Your task to perform on an android device: turn on priority inbox in the gmail app Image 0: 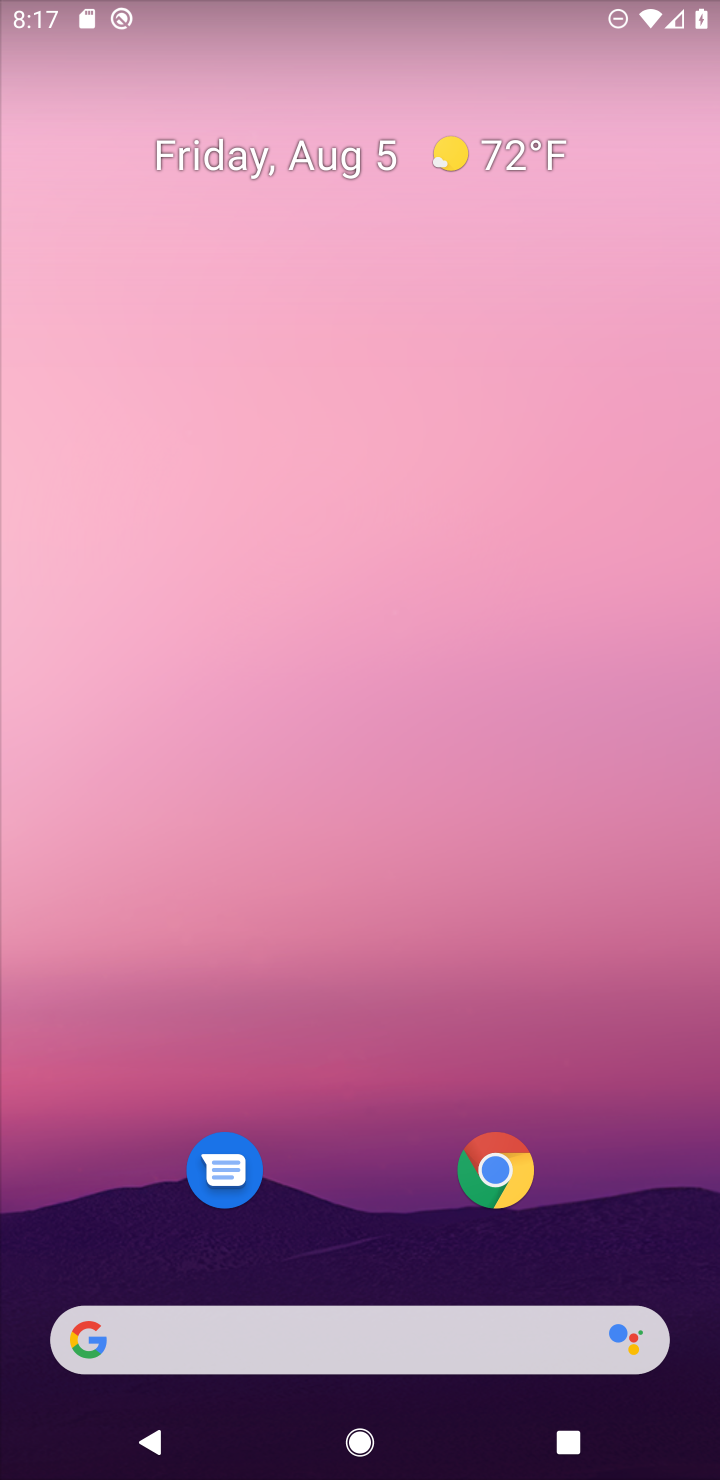
Step 0: drag from (643, 1230) to (603, 83)
Your task to perform on an android device: turn on priority inbox in the gmail app Image 1: 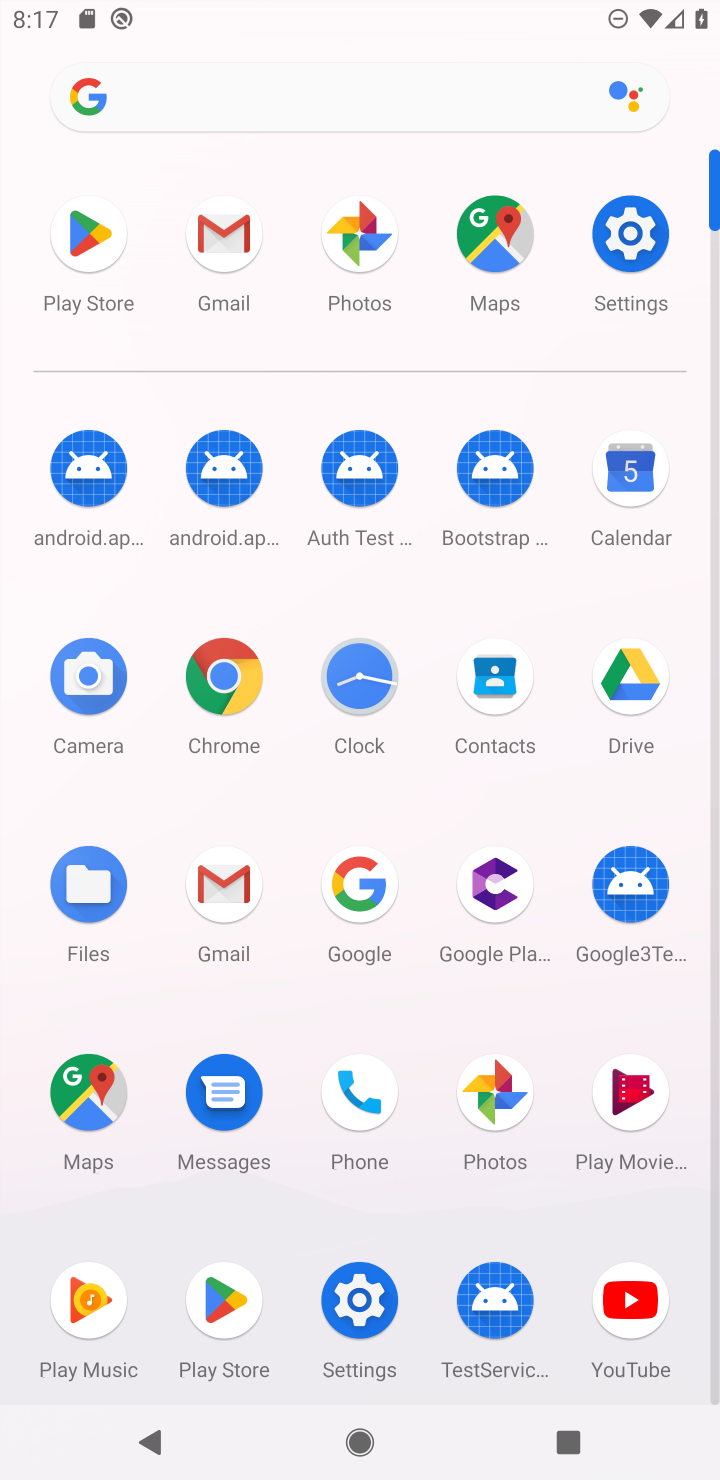
Step 1: click (220, 890)
Your task to perform on an android device: turn on priority inbox in the gmail app Image 2: 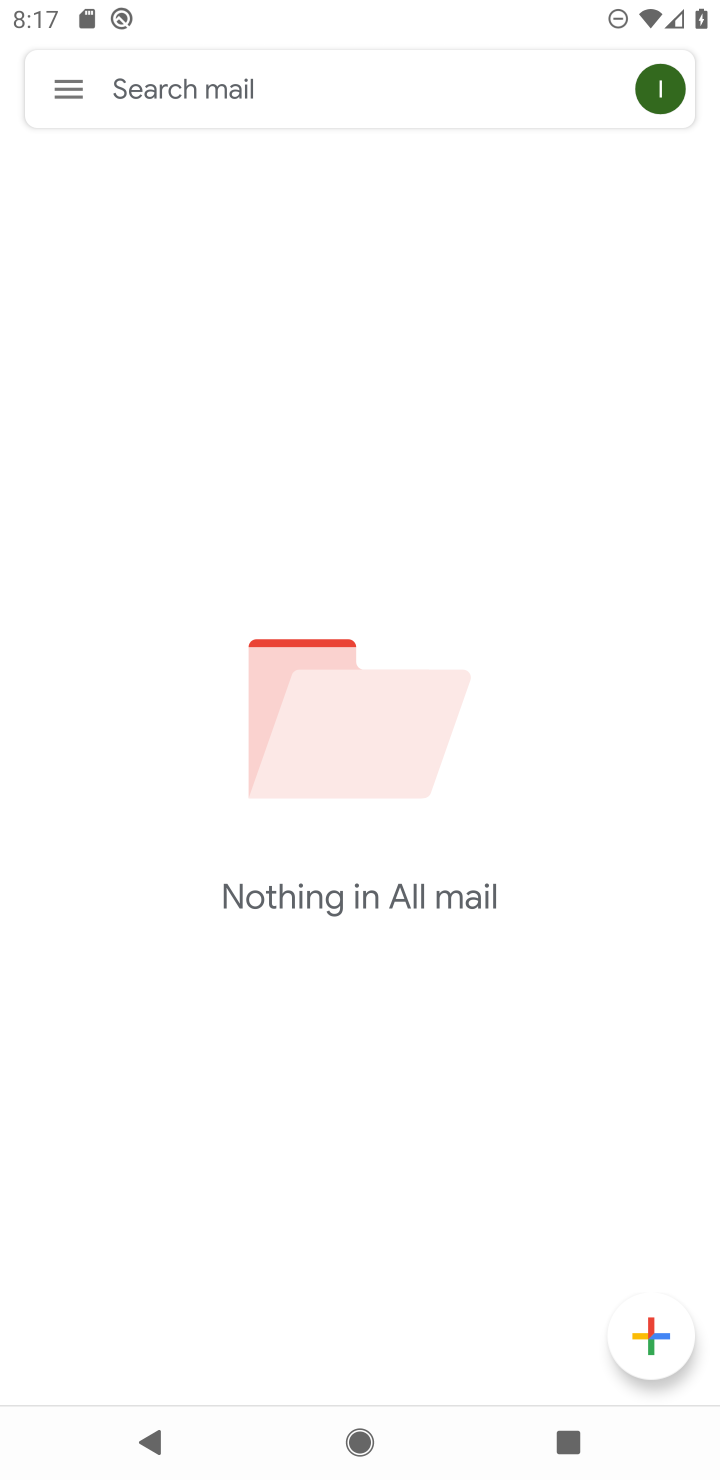
Step 2: click (72, 97)
Your task to perform on an android device: turn on priority inbox in the gmail app Image 3: 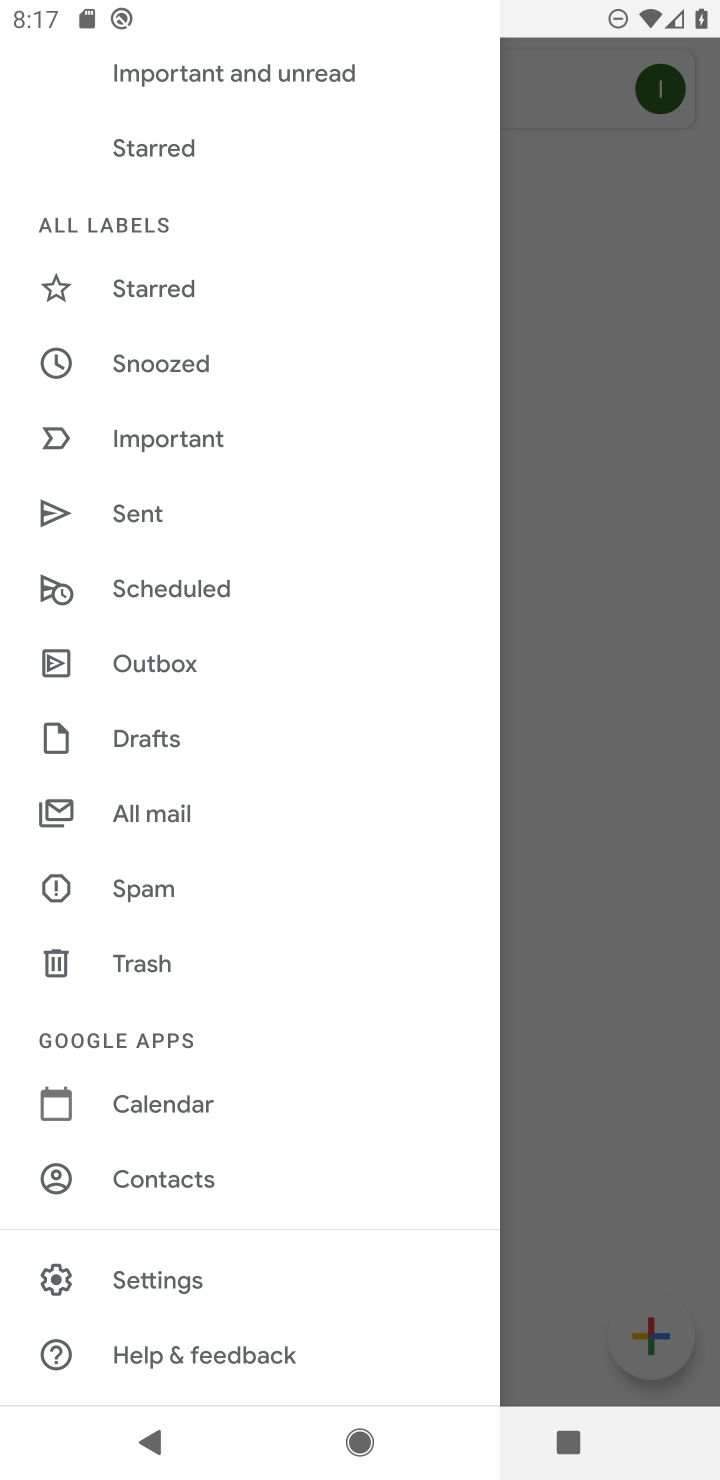
Step 3: click (150, 1267)
Your task to perform on an android device: turn on priority inbox in the gmail app Image 4: 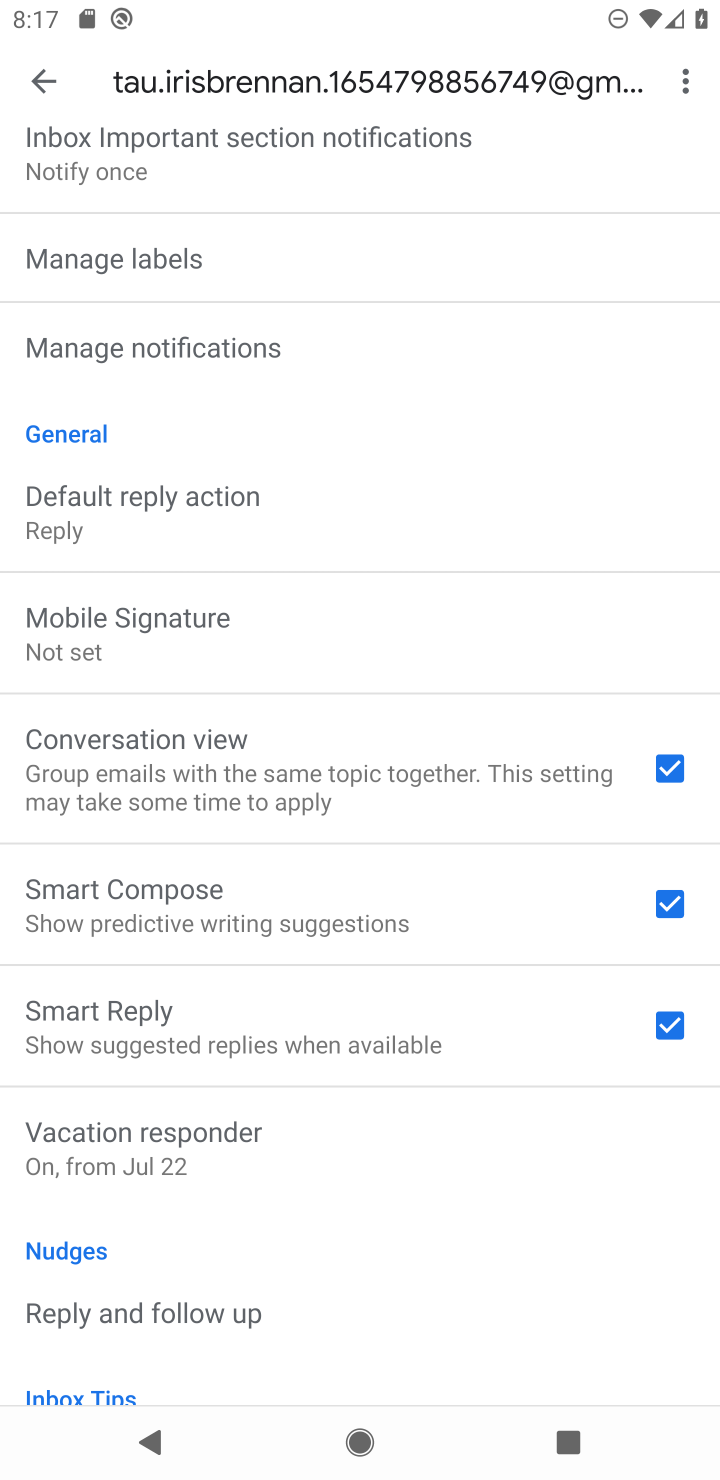
Step 4: drag from (509, 351) to (524, 883)
Your task to perform on an android device: turn on priority inbox in the gmail app Image 5: 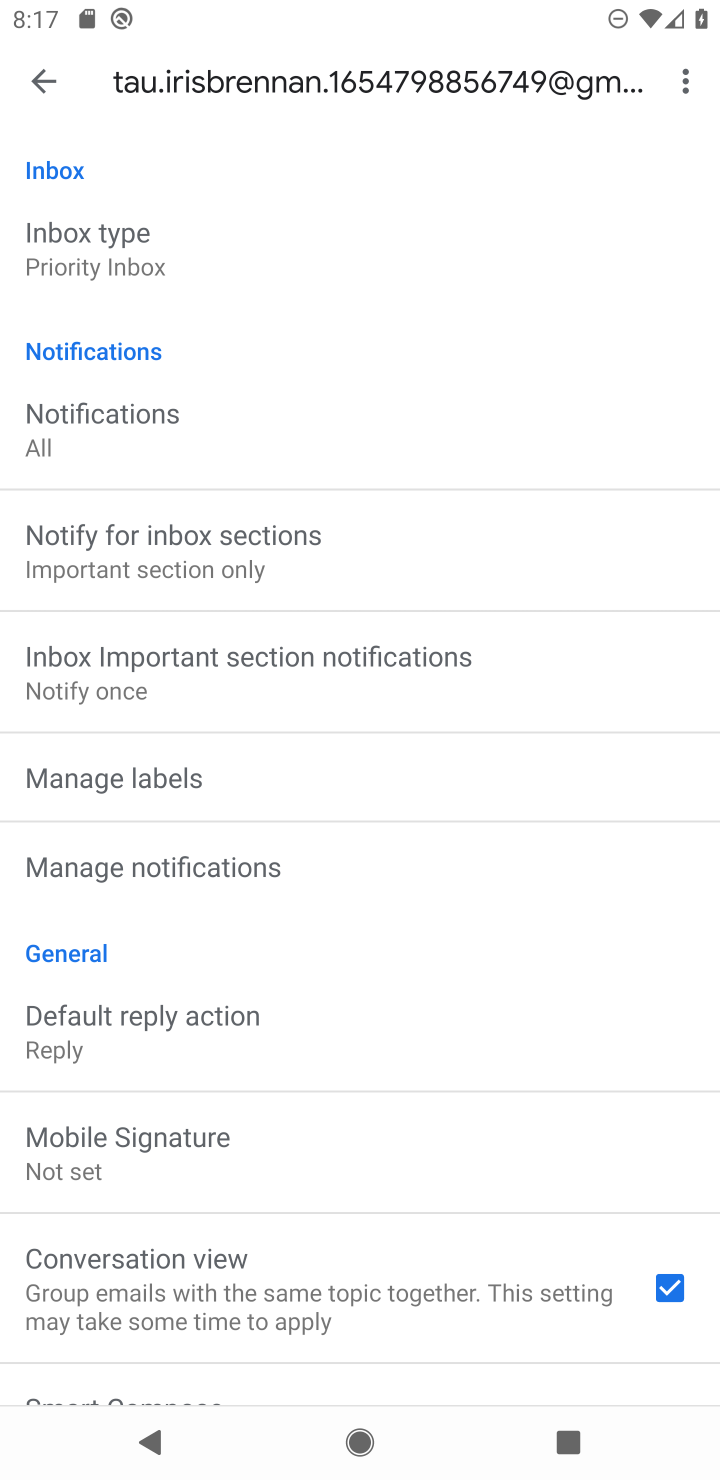
Step 5: drag from (456, 341) to (471, 840)
Your task to perform on an android device: turn on priority inbox in the gmail app Image 6: 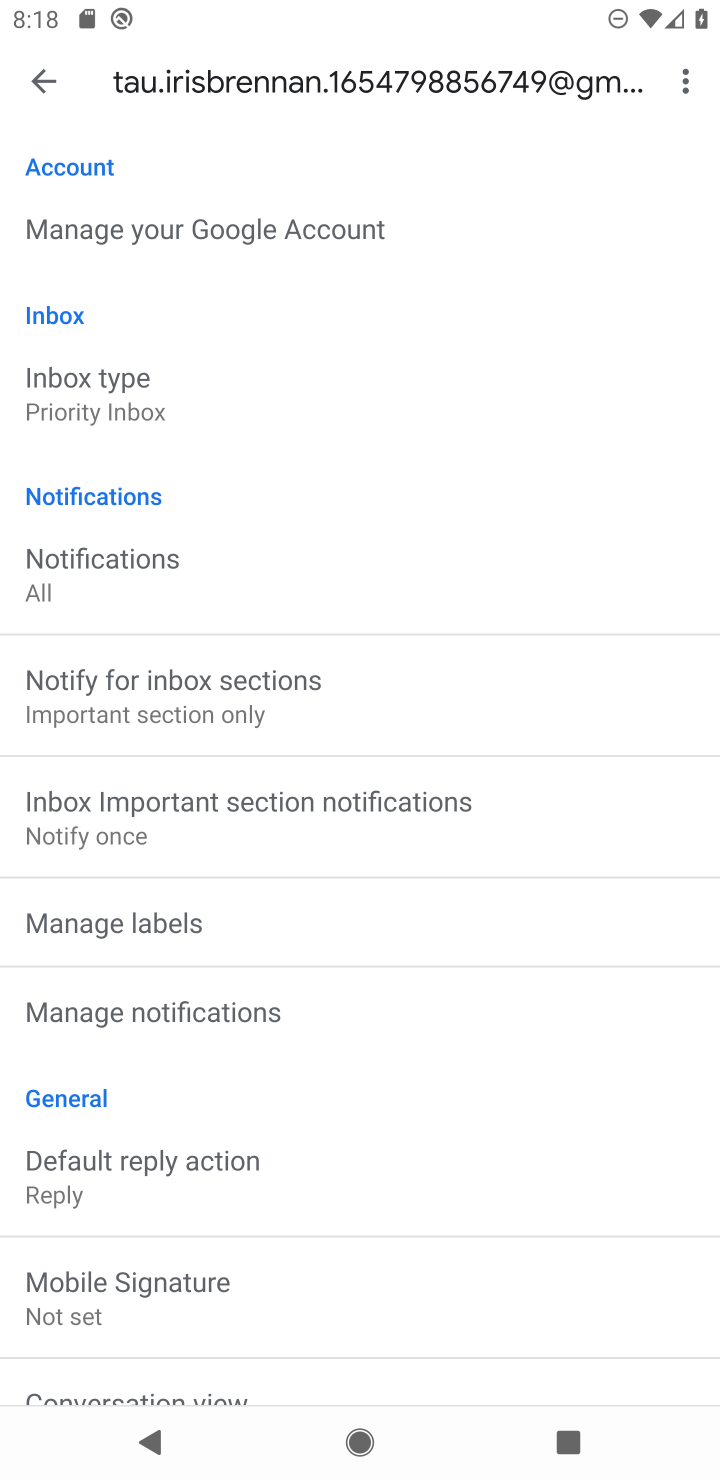
Step 6: click (86, 390)
Your task to perform on an android device: turn on priority inbox in the gmail app Image 7: 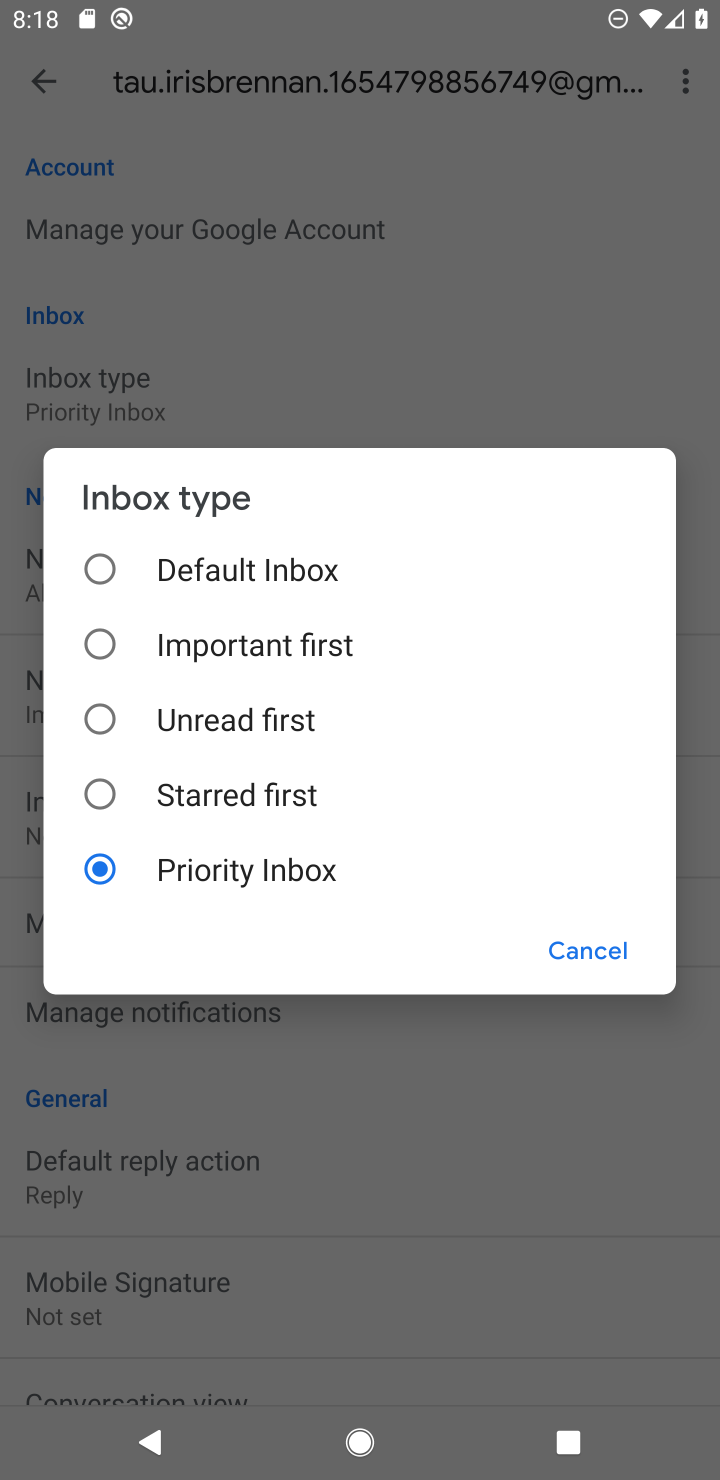
Step 7: task complete